Your task to perform on an android device: turn smart compose on in the gmail app Image 0: 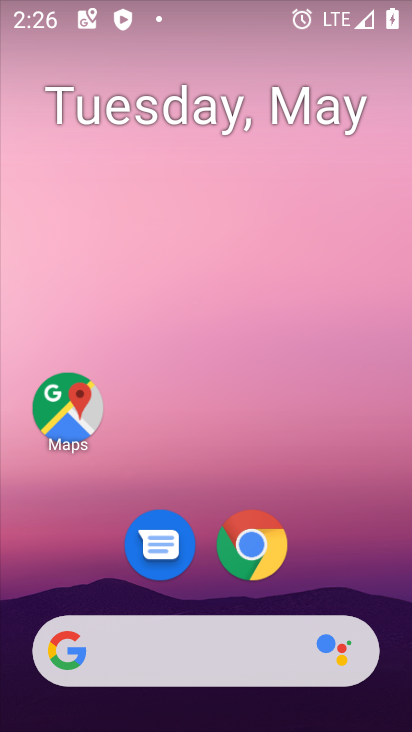
Step 0: drag from (372, 543) to (260, 14)
Your task to perform on an android device: turn smart compose on in the gmail app Image 1: 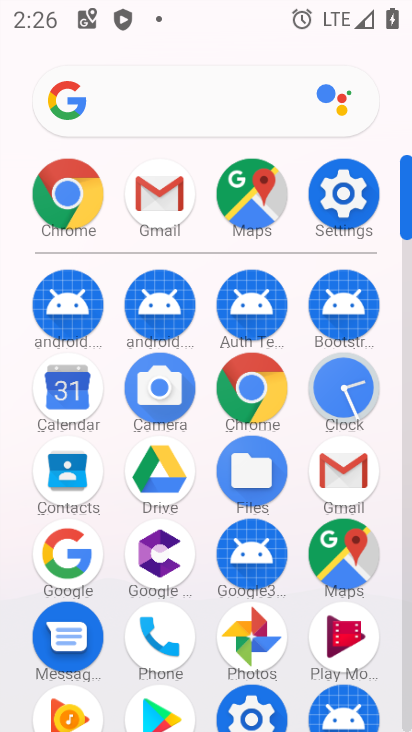
Step 1: drag from (9, 543) to (0, 211)
Your task to perform on an android device: turn smart compose on in the gmail app Image 2: 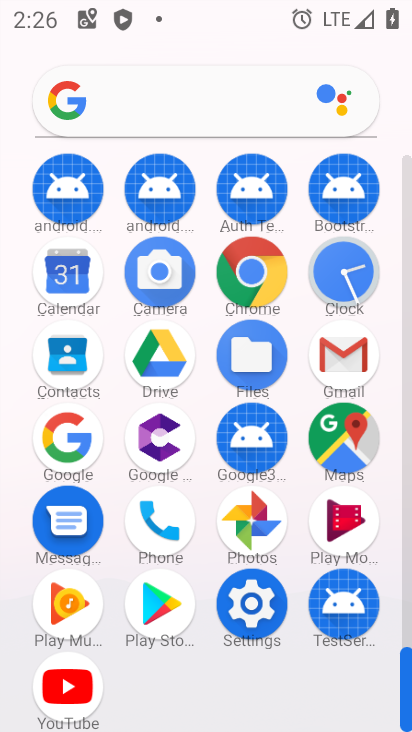
Step 2: click (343, 349)
Your task to perform on an android device: turn smart compose on in the gmail app Image 3: 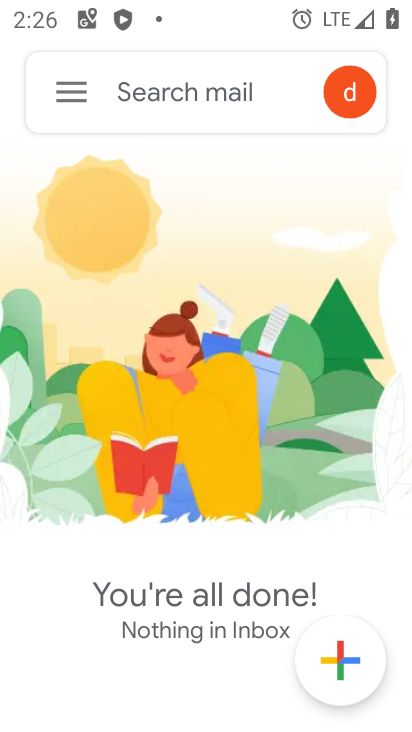
Step 3: click (64, 83)
Your task to perform on an android device: turn smart compose on in the gmail app Image 4: 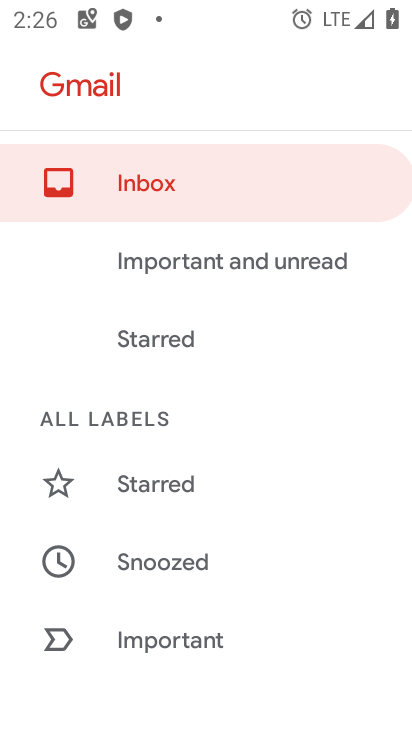
Step 4: drag from (154, 572) to (185, 190)
Your task to perform on an android device: turn smart compose on in the gmail app Image 5: 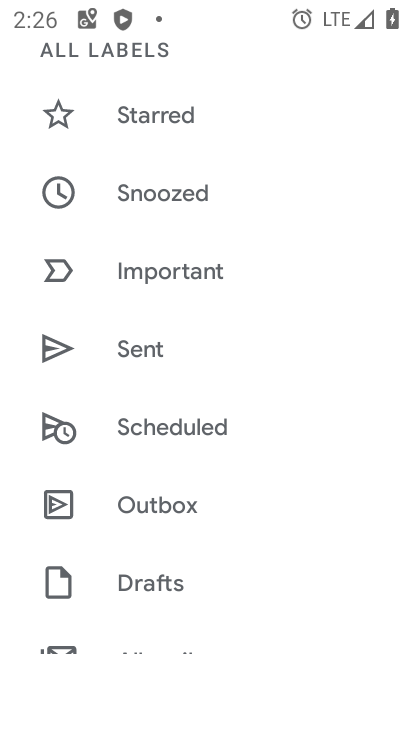
Step 5: drag from (224, 567) to (281, 145)
Your task to perform on an android device: turn smart compose on in the gmail app Image 6: 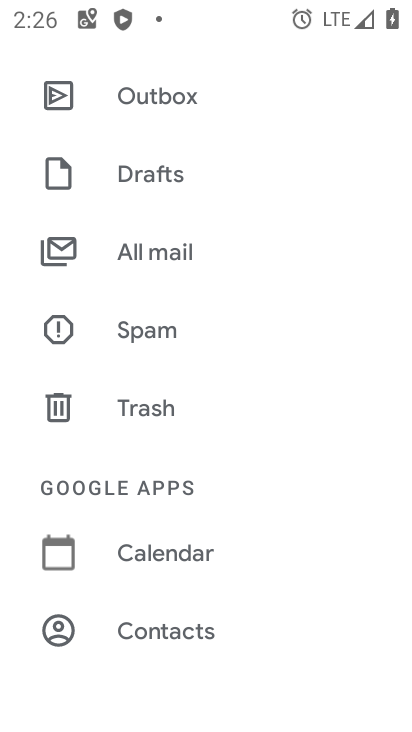
Step 6: drag from (237, 547) to (228, 122)
Your task to perform on an android device: turn smart compose on in the gmail app Image 7: 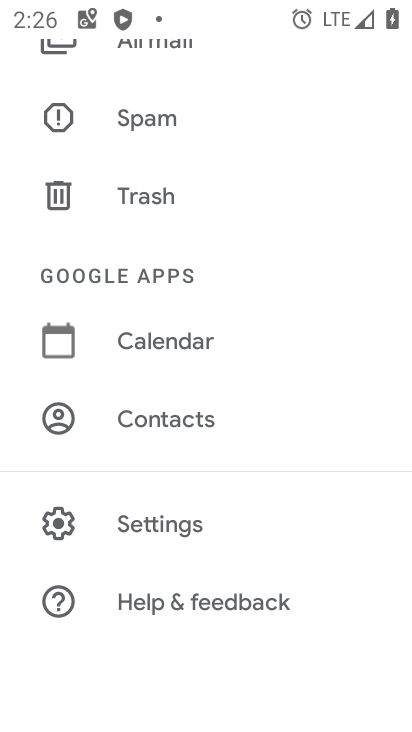
Step 7: click (127, 510)
Your task to perform on an android device: turn smart compose on in the gmail app Image 8: 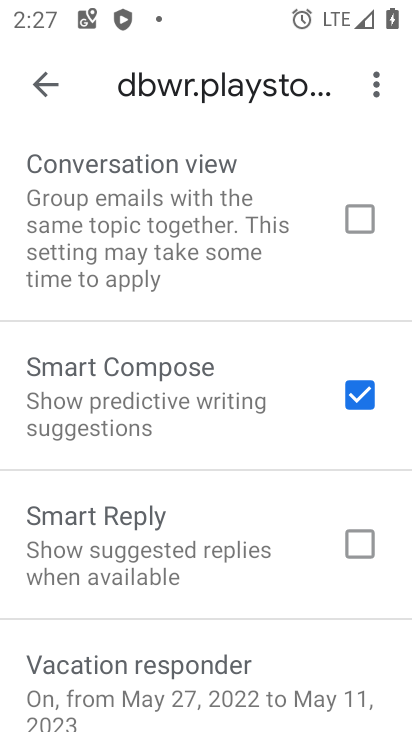
Step 8: task complete